Your task to perform on an android device: Open maps Image 0: 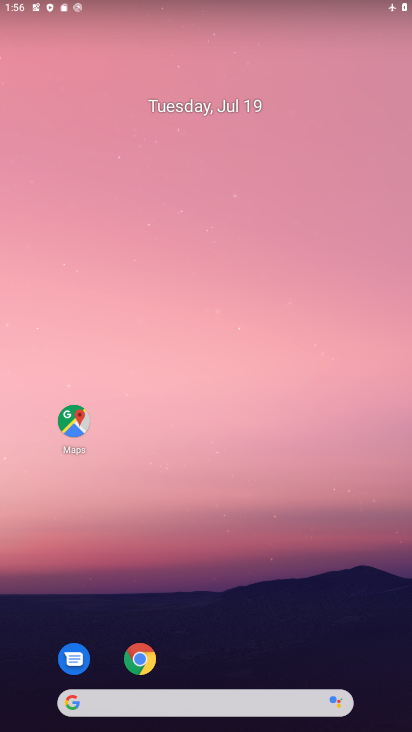
Step 0: click (76, 419)
Your task to perform on an android device: Open maps Image 1: 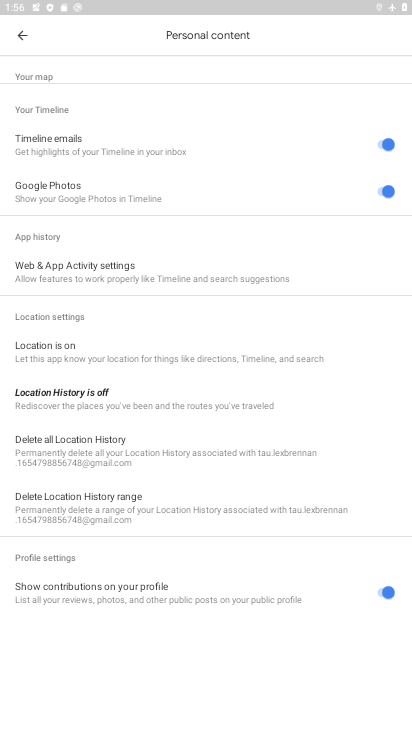
Step 1: task complete